Your task to perform on an android device: turn on wifi Image 0: 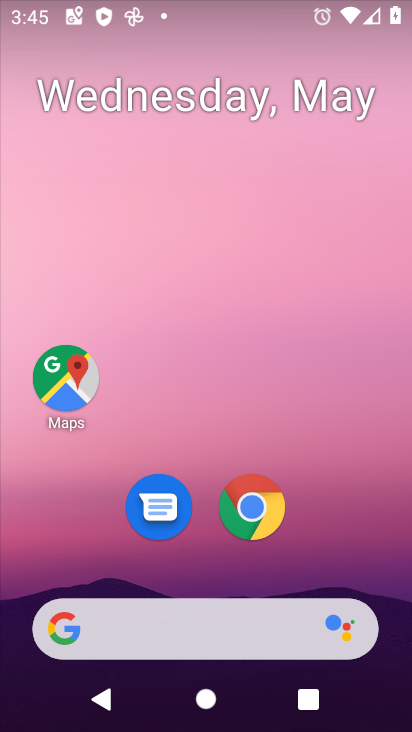
Step 0: drag from (320, 341) to (265, 0)
Your task to perform on an android device: turn on wifi Image 1: 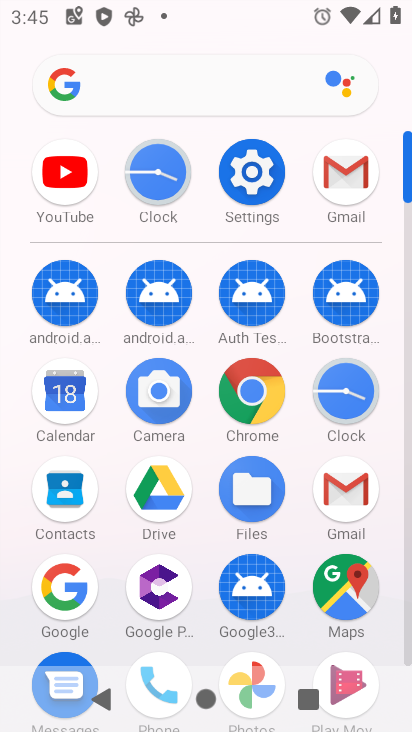
Step 1: click (248, 170)
Your task to perform on an android device: turn on wifi Image 2: 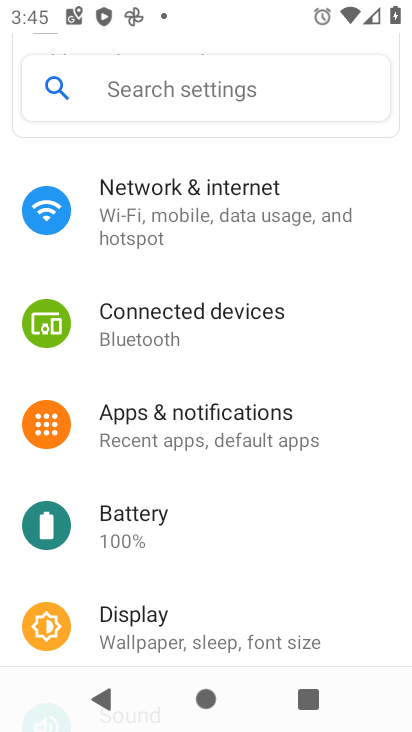
Step 2: click (252, 170)
Your task to perform on an android device: turn on wifi Image 3: 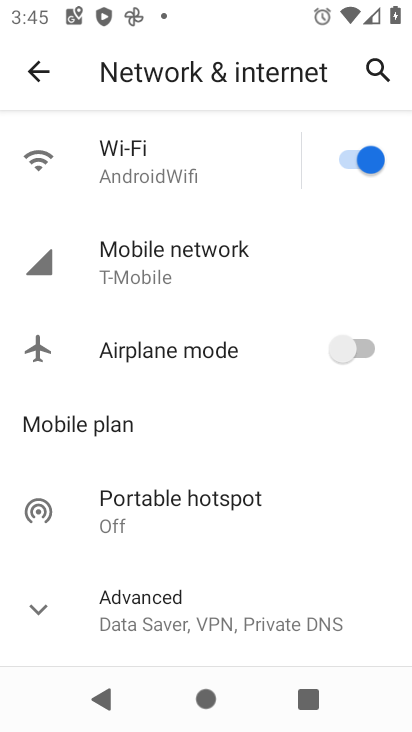
Step 3: click (55, 165)
Your task to perform on an android device: turn on wifi Image 4: 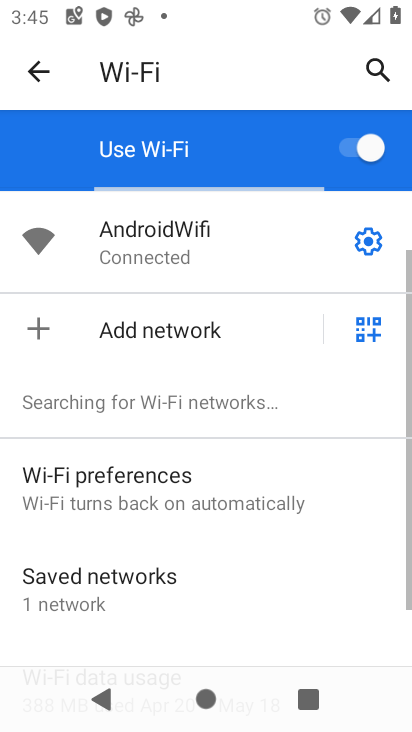
Step 4: task complete